Your task to perform on an android device: turn off sleep mode Image 0: 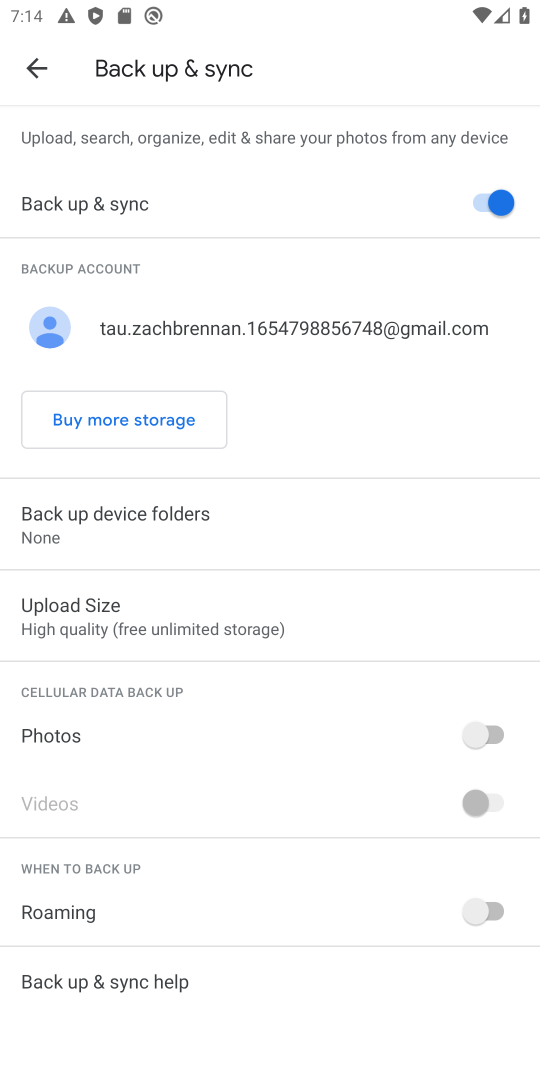
Step 0: press home button
Your task to perform on an android device: turn off sleep mode Image 1: 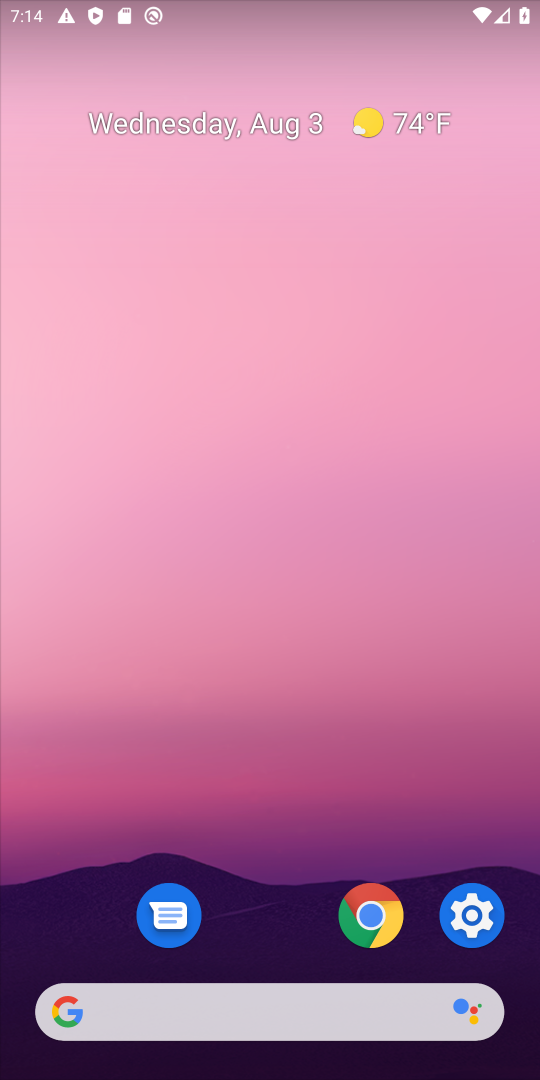
Step 1: drag from (384, 1020) to (400, 169)
Your task to perform on an android device: turn off sleep mode Image 2: 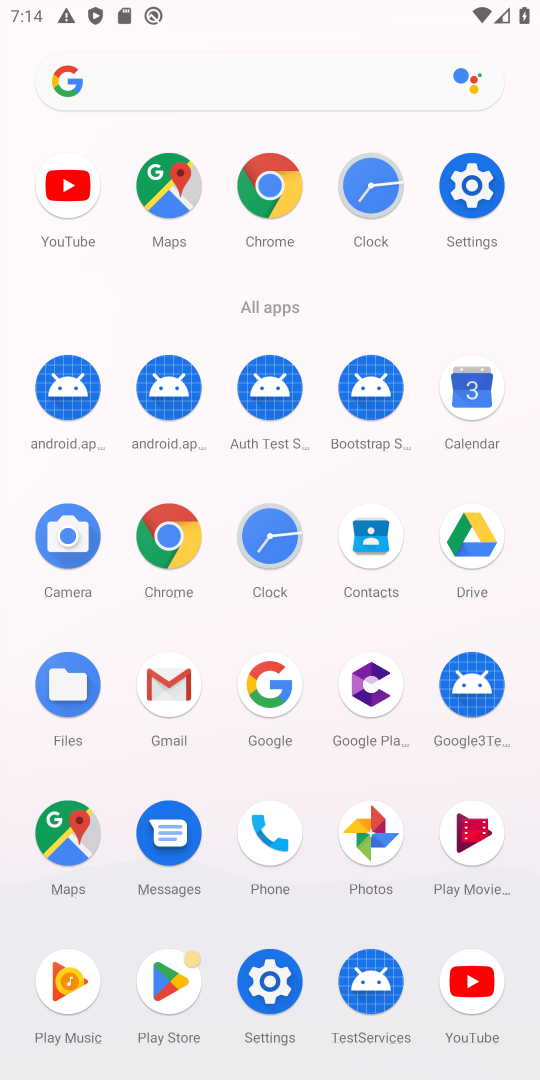
Step 2: click (472, 196)
Your task to perform on an android device: turn off sleep mode Image 3: 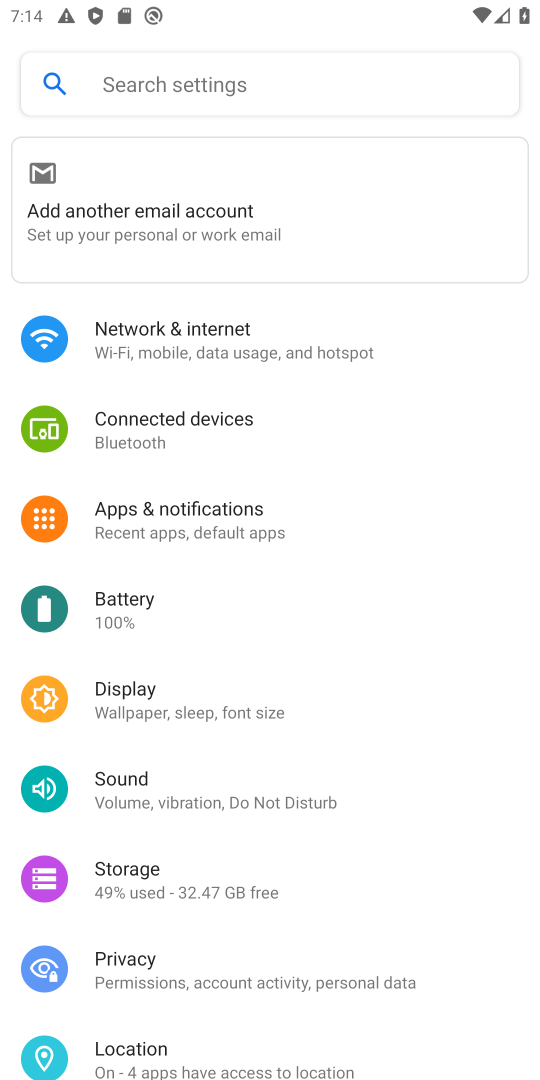
Step 3: click (164, 72)
Your task to perform on an android device: turn off sleep mode Image 4: 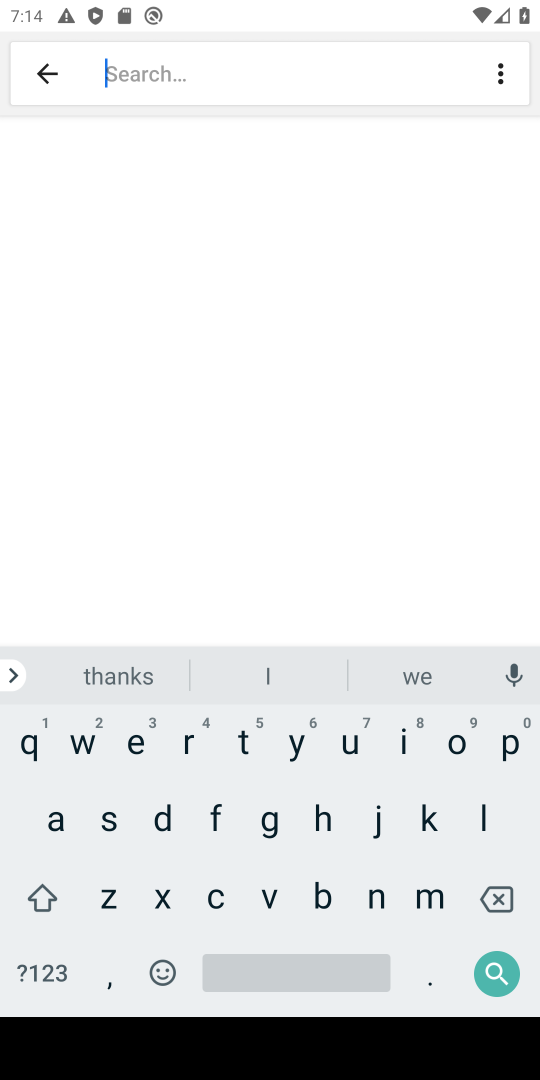
Step 4: click (105, 831)
Your task to perform on an android device: turn off sleep mode Image 5: 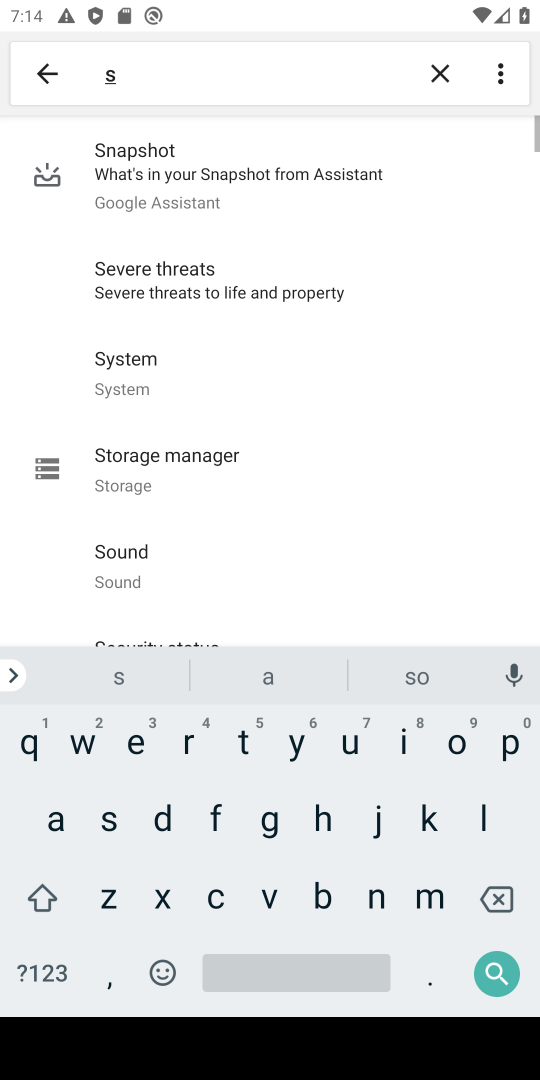
Step 5: click (480, 824)
Your task to perform on an android device: turn off sleep mode Image 6: 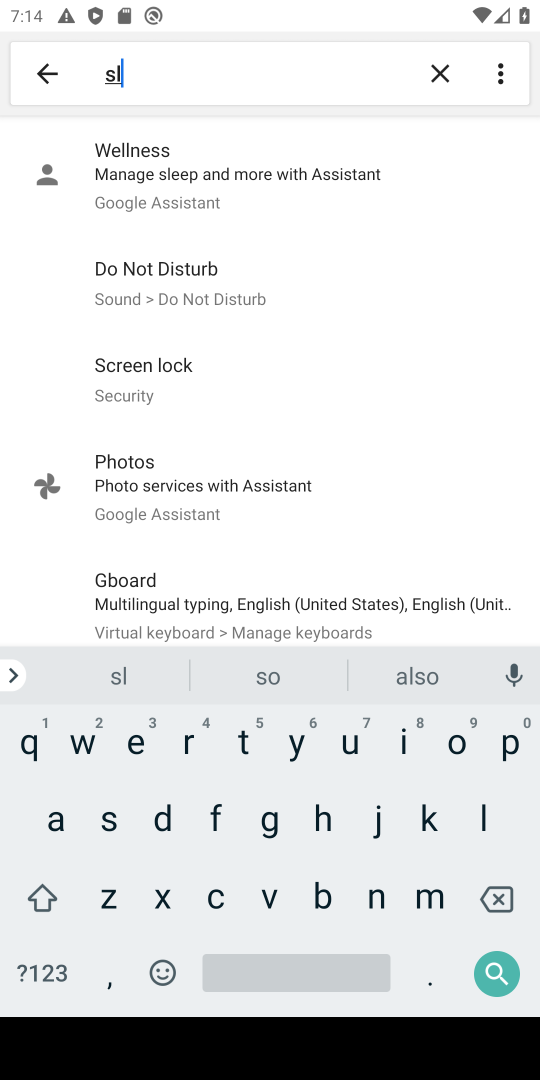
Step 6: click (180, 282)
Your task to perform on an android device: turn off sleep mode Image 7: 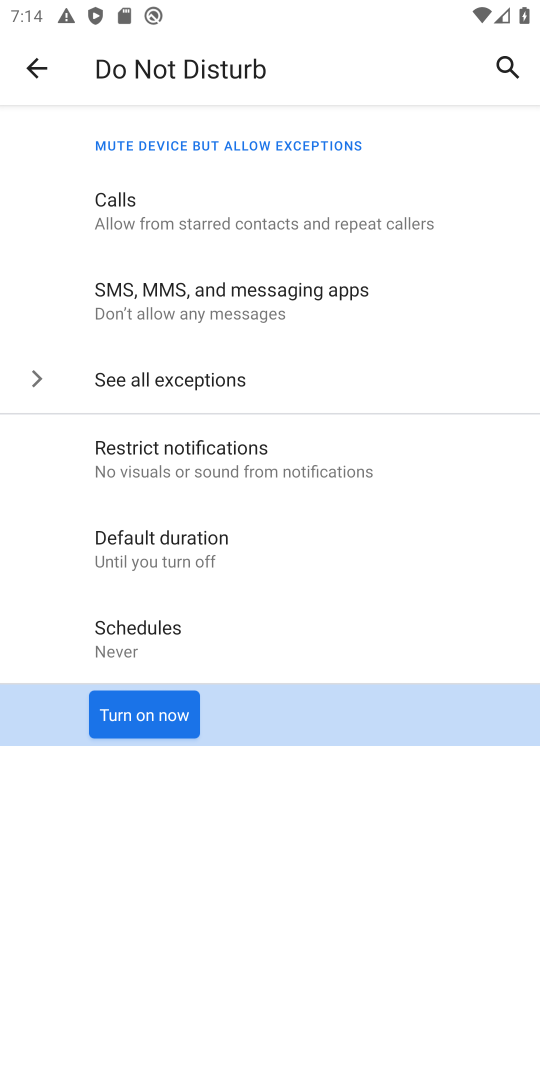
Step 7: click (138, 720)
Your task to perform on an android device: turn off sleep mode Image 8: 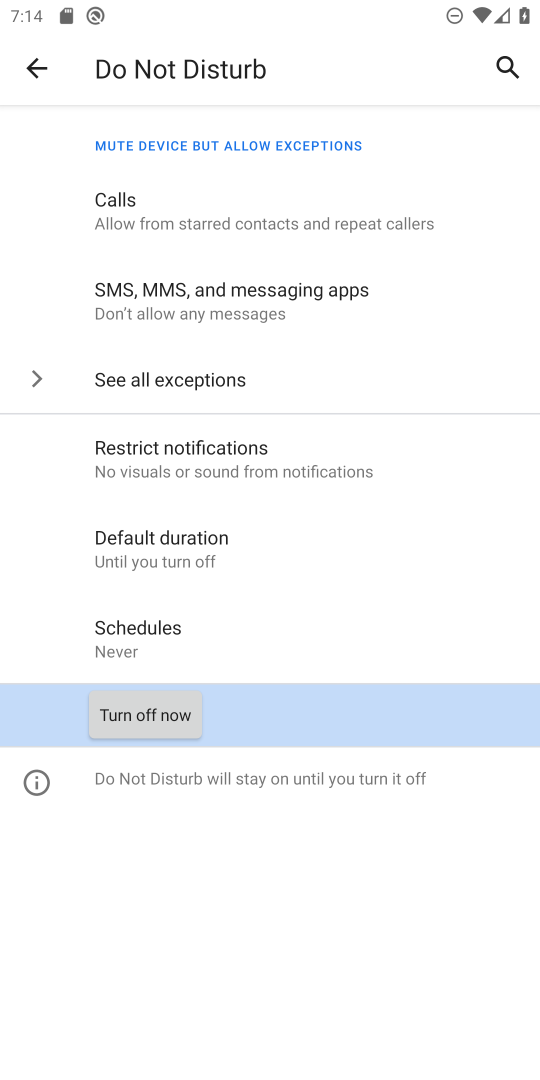
Step 8: click (138, 720)
Your task to perform on an android device: turn off sleep mode Image 9: 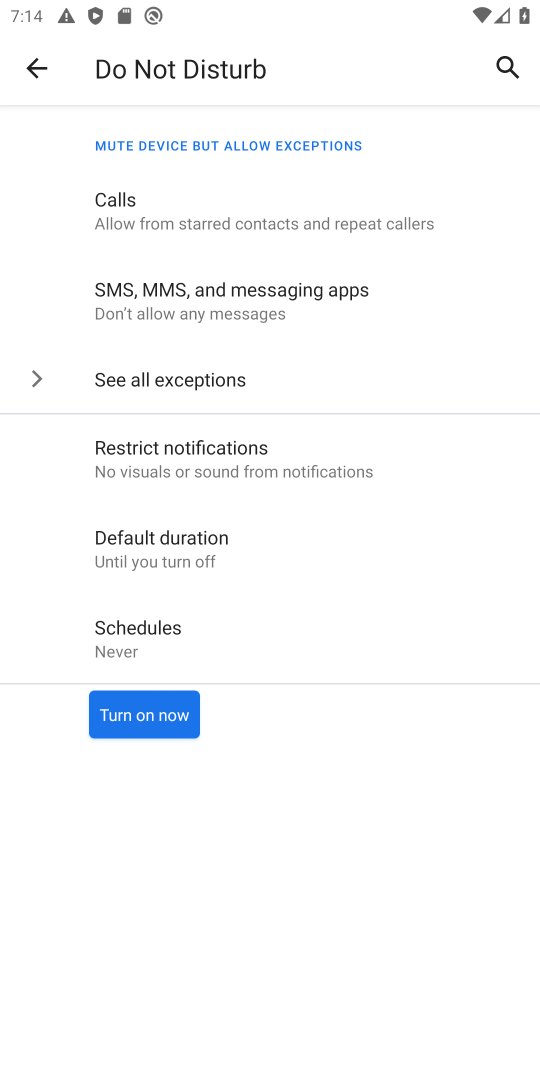
Step 9: task complete